Your task to perform on an android device: Show me the alarms in the clock app Image 0: 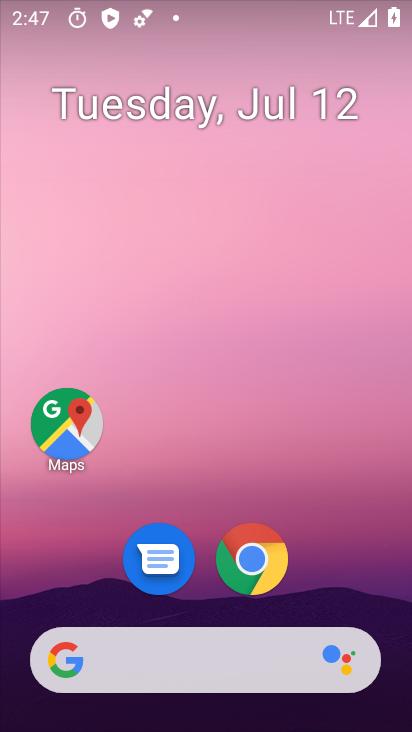
Step 0: drag from (364, 595) to (365, 301)
Your task to perform on an android device: Show me the alarms in the clock app Image 1: 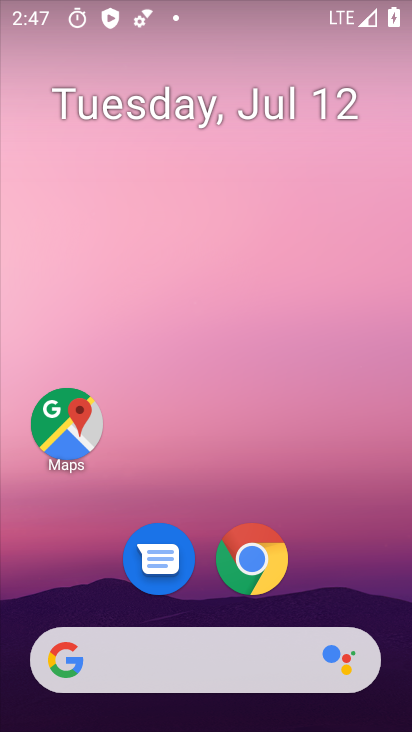
Step 1: drag from (377, 576) to (380, 207)
Your task to perform on an android device: Show me the alarms in the clock app Image 2: 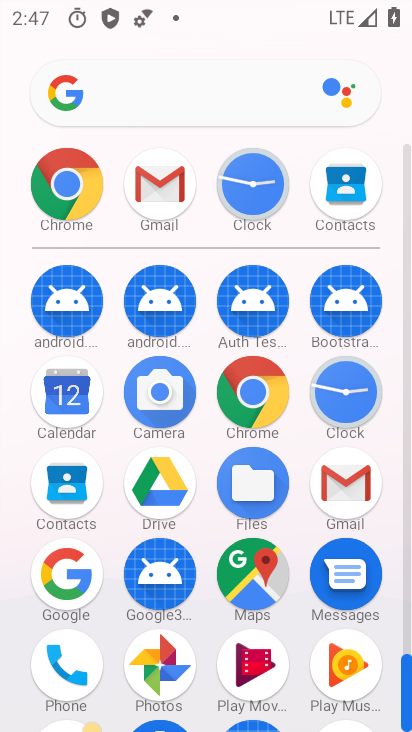
Step 2: click (357, 409)
Your task to perform on an android device: Show me the alarms in the clock app Image 3: 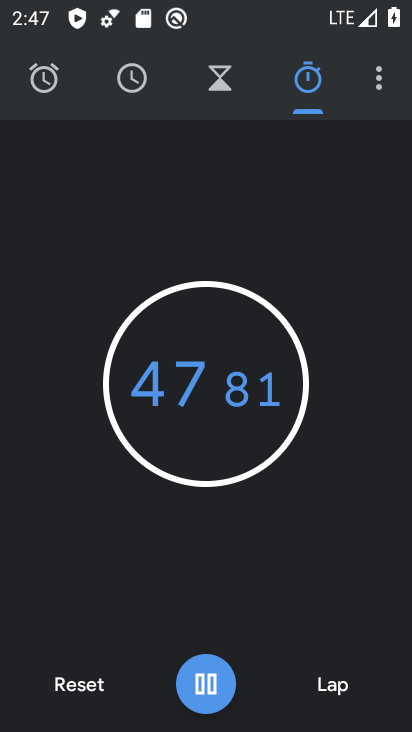
Step 3: click (41, 99)
Your task to perform on an android device: Show me the alarms in the clock app Image 4: 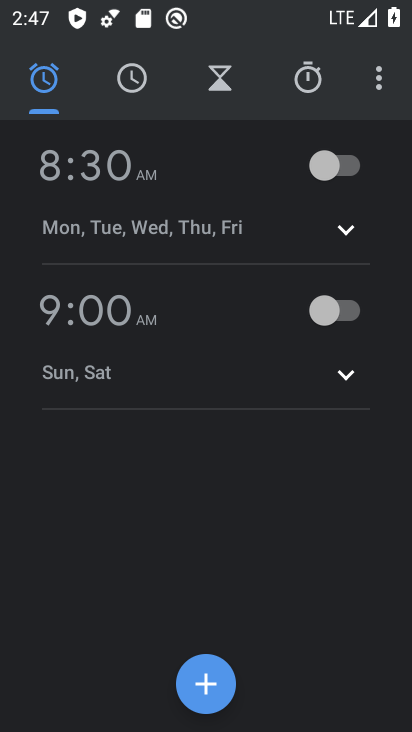
Step 4: task complete